Your task to perform on an android device: find photos in the google photos app Image 0: 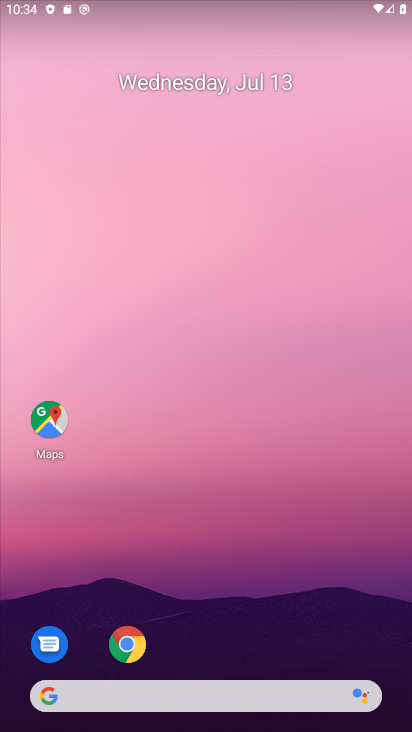
Step 0: click (232, 488)
Your task to perform on an android device: find photos in the google photos app Image 1: 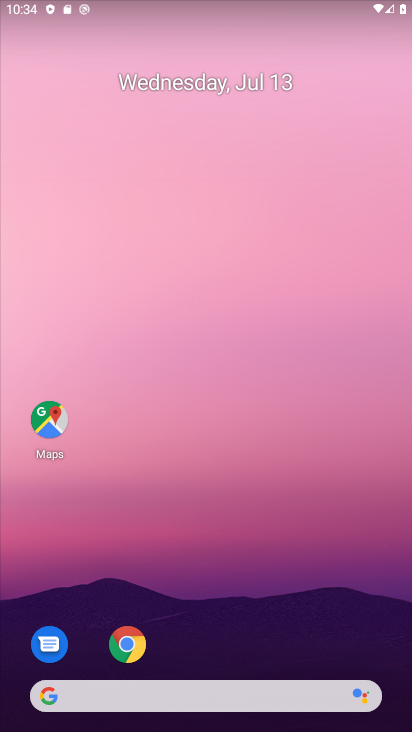
Step 1: drag from (214, 525) to (173, 56)
Your task to perform on an android device: find photos in the google photos app Image 2: 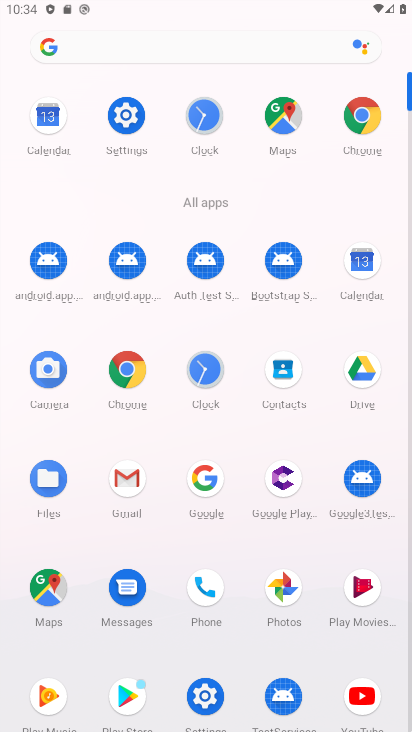
Step 2: click (282, 587)
Your task to perform on an android device: find photos in the google photos app Image 3: 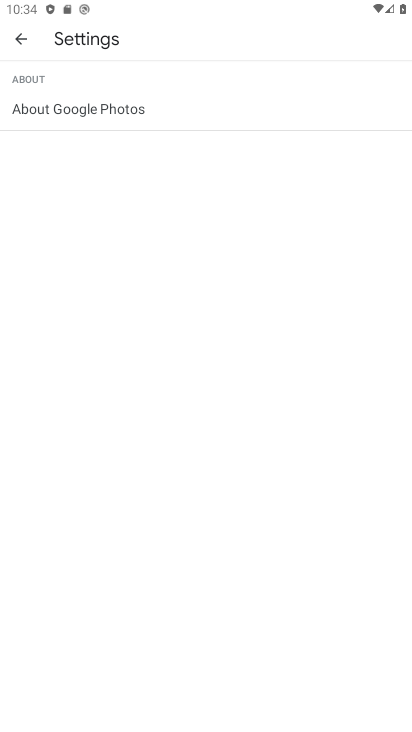
Step 3: click (17, 38)
Your task to perform on an android device: find photos in the google photos app Image 4: 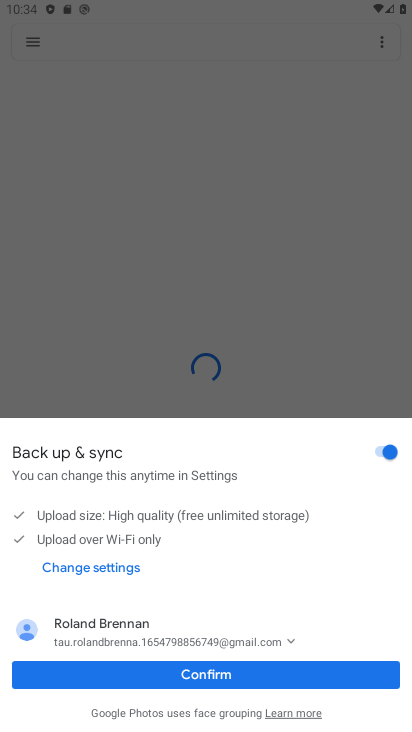
Step 4: click (203, 674)
Your task to perform on an android device: find photos in the google photos app Image 5: 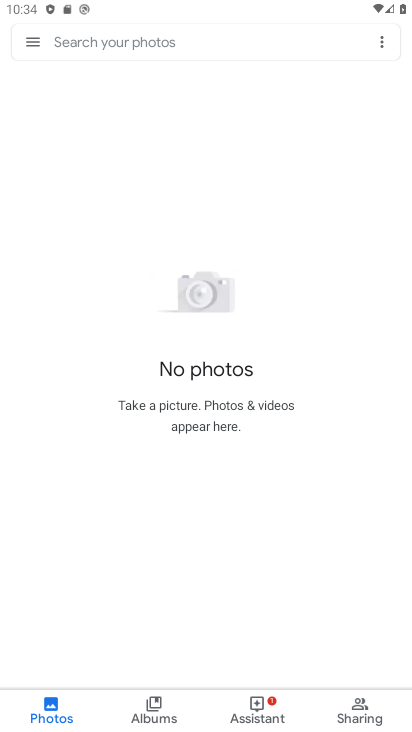
Step 5: task complete